Your task to perform on an android device: change the clock display to digital Image 0: 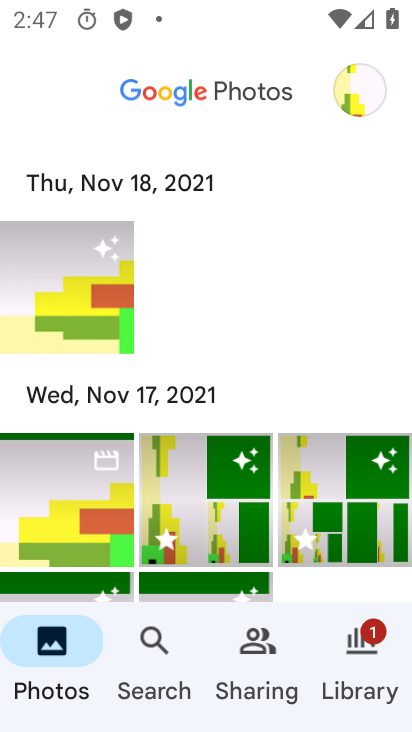
Step 0: click (361, 97)
Your task to perform on an android device: change the clock display to digital Image 1: 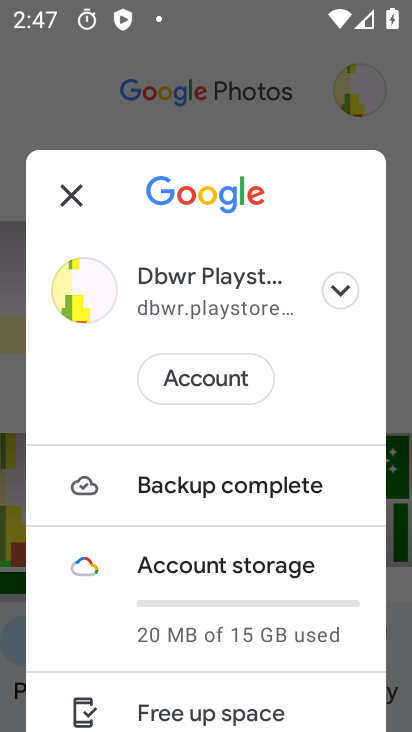
Step 1: press home button
Your task to perform on an android device: change the clock display to digital Image 2: 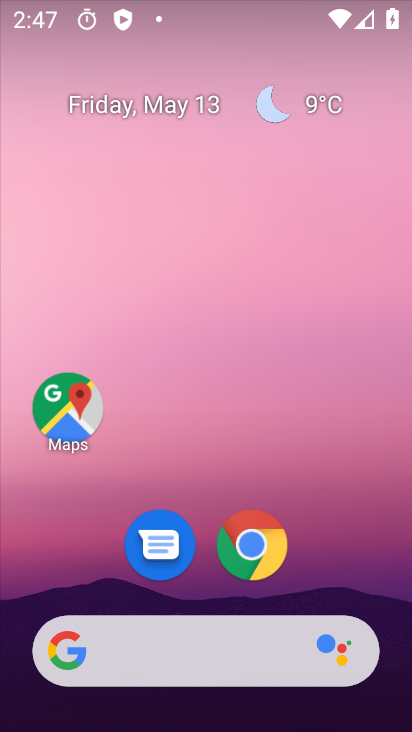
Step 2: drag from (237, 480) to (240, 67)
Your task to perform on an android device: change the clock display to digital Image 3: 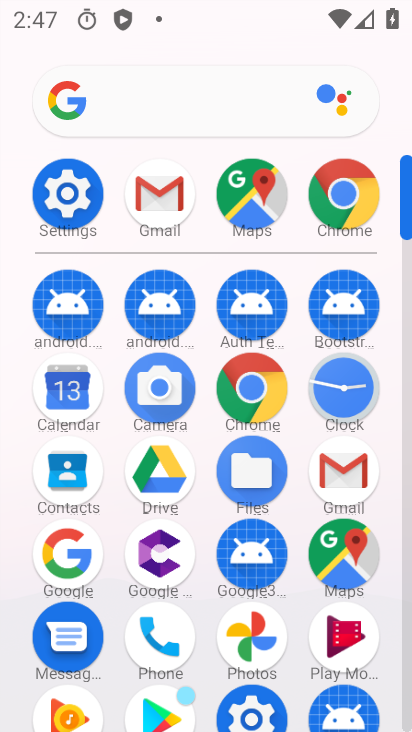
Step 3: click (356, 377)
Your task to perform on an android device: change the clock display to digital Image 4: 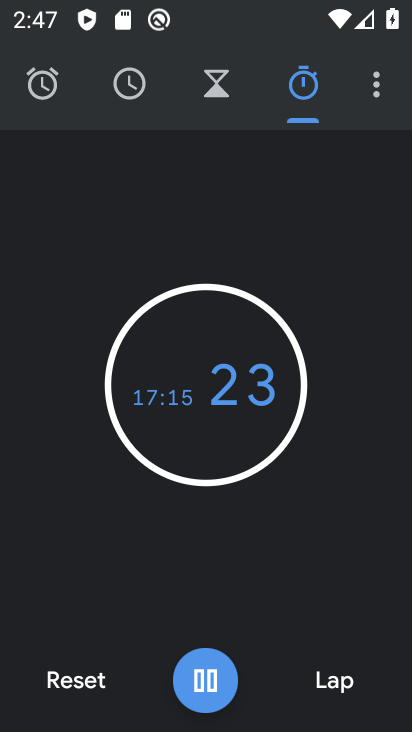
Step 4: click (376, 91)
Your task to perform on an android device: change the clock display to digital Image 5: 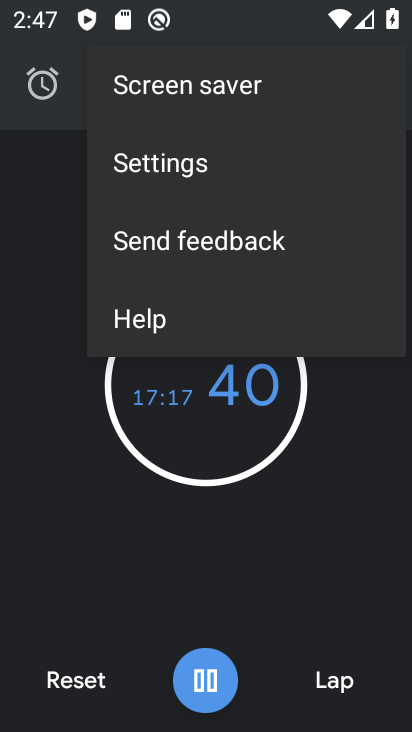
Step 5: click (203, 160)
Your task to perform on an android device: change the clock display to digital Image 6: 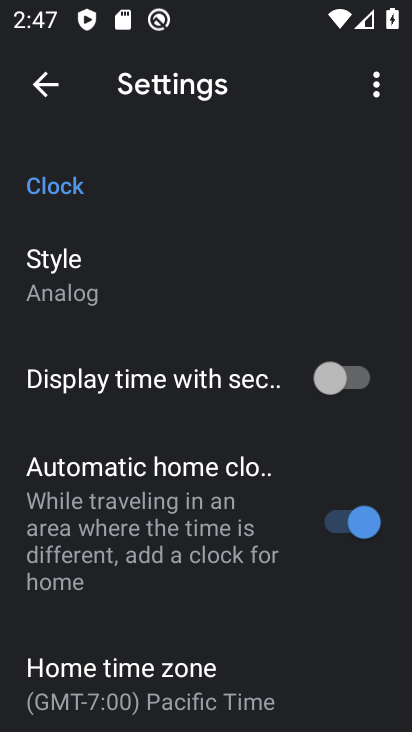
Step 6: click (103, 265)
Your task to perform on an android device: change the clock display to digital Image 7: 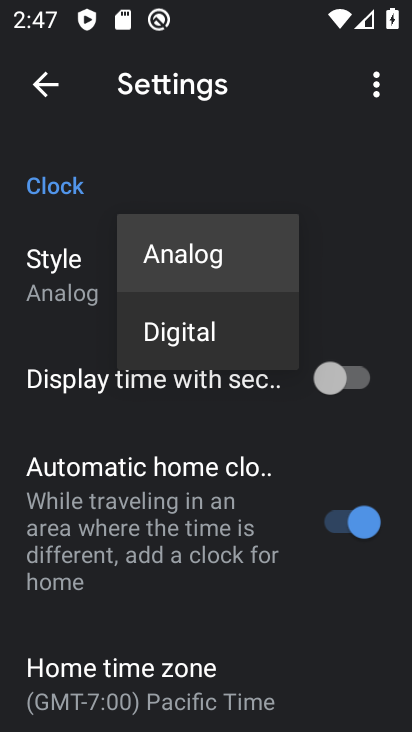
Step 7: click (148, 322)
Your task to perform on an android device: change the clock display to digital Image 8: 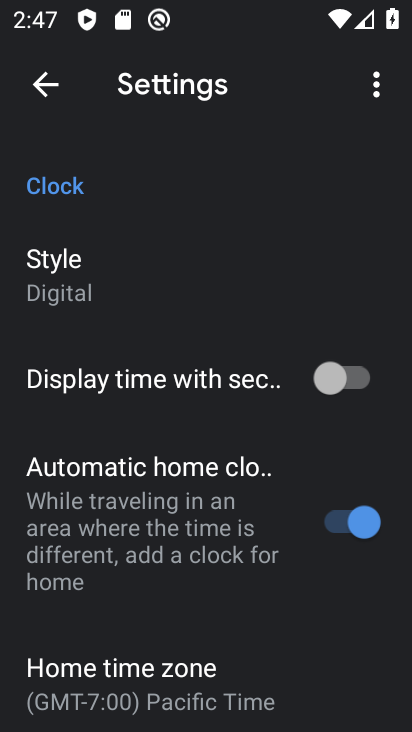
Step 8: task complete